Your task to perform on an android device: turn off location history Image 0: 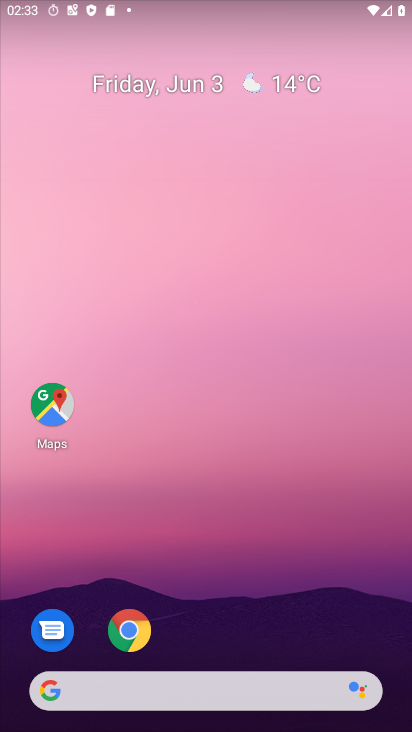
Step 0: drag from (390, 714) to (354, 254)
Your task to perform on an android device: turn off location history Image 1: 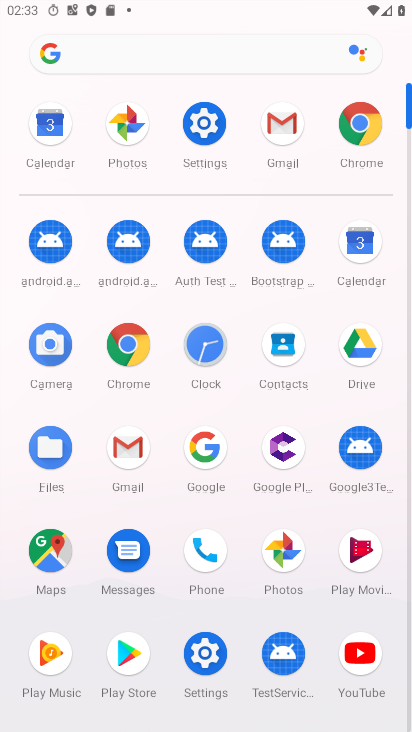
Step 1: click (204, 647)
Your task to perform on an android device: turn off location history Image 2: 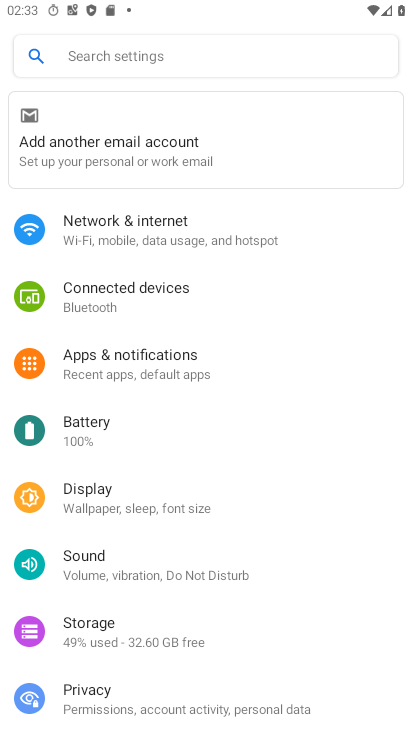
Step 2: drag from (265, 640) to (268, 399)
Your task to perform on an android device: turn off location history Image 3: 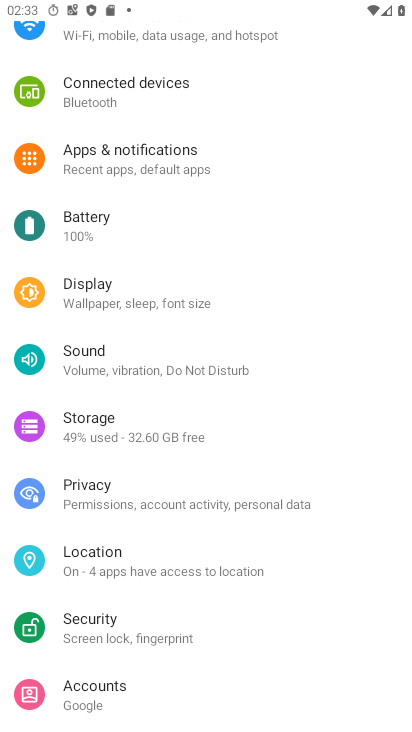
Step 3: click (124, 558)
Your task to perform on an android device: turn off location history Image 4: 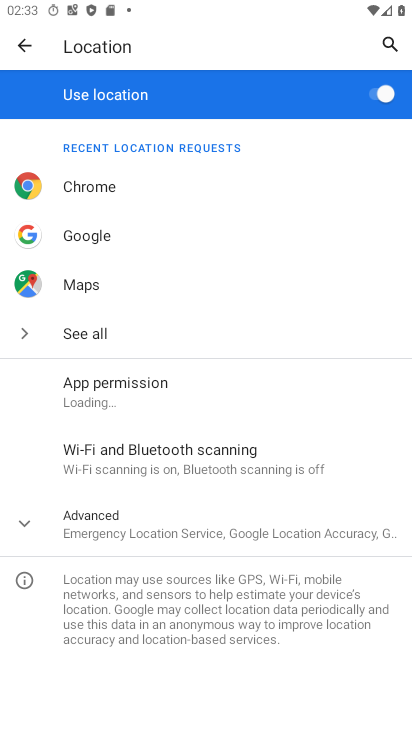
Step 4: click (30, 519)
Your task to perform on an android device: turn off location history Image 5: 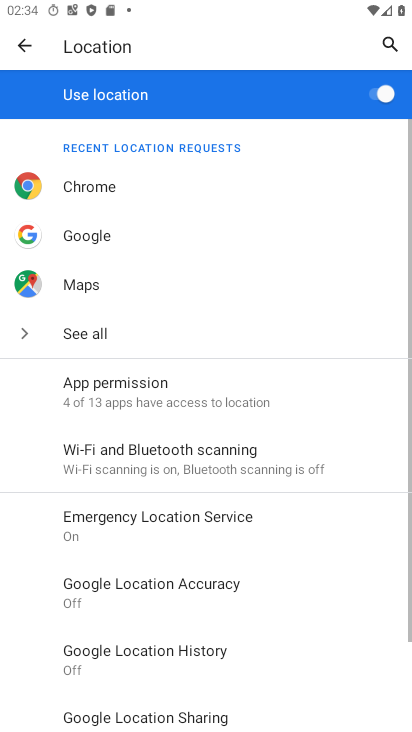
Step 5: drag from (272, 655) to (256, 273)
Your task to perform on an android device: turn off location history Image 6: 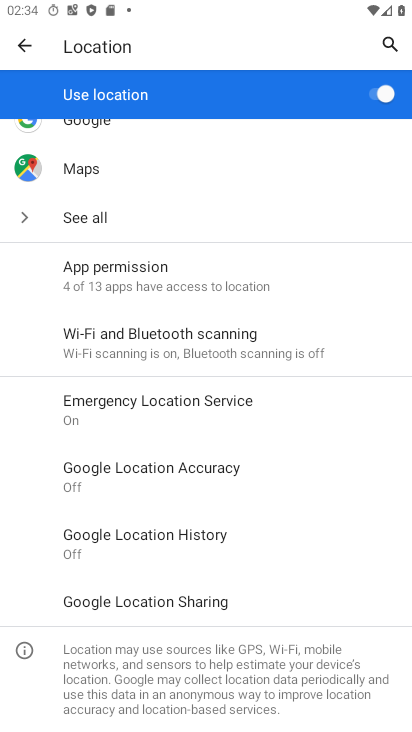
Step 6: click (159, 529)
Your task to perform on an android device: turn off location history Image 7: 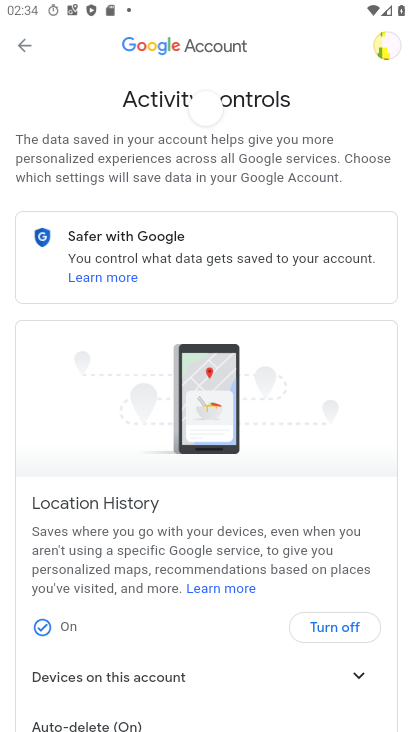
Step 7: task complete